Your task to perform on an android device: turn off javascript in the chrome app Image 0: 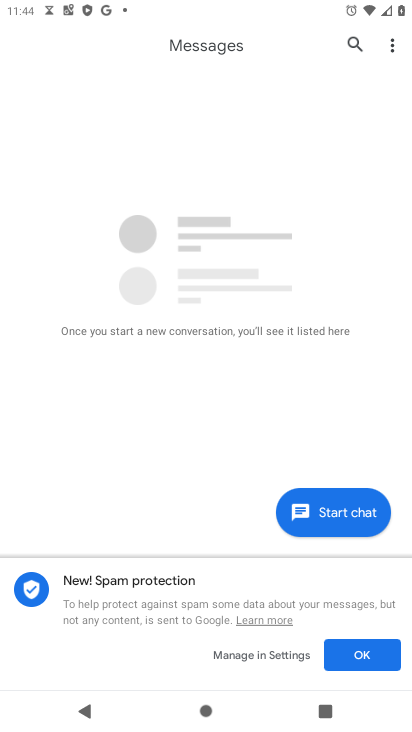
Step 0: press home button
Your task to perform on an android device: turn off javascript in the chrome app Image 1: 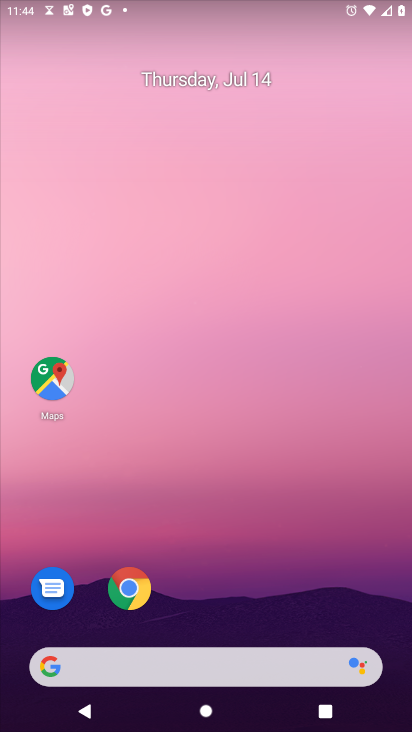
Step 1: click (129, 594)
Your task to perform on an android device: turn off javascript in the chrome app Image 2: 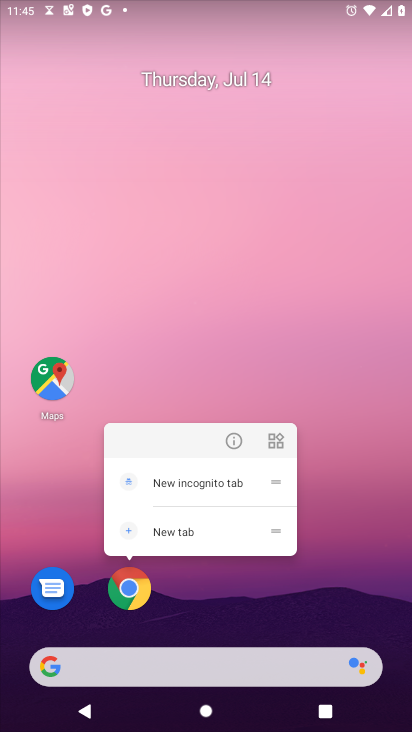
Step 2: click (129, 594)
Your task to perform on an android device: turn off javascript in the chrome app Image 3: 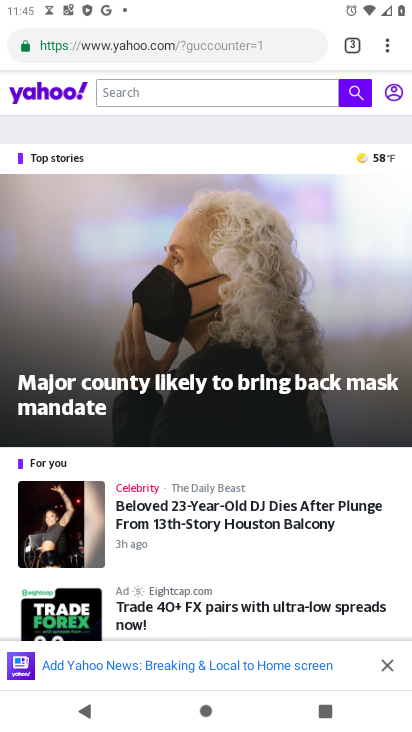
Step 3: drag from (383, 50) to (300, 550)
Your task to perform on an android device: turn off javascript in the chrome app Image 4: 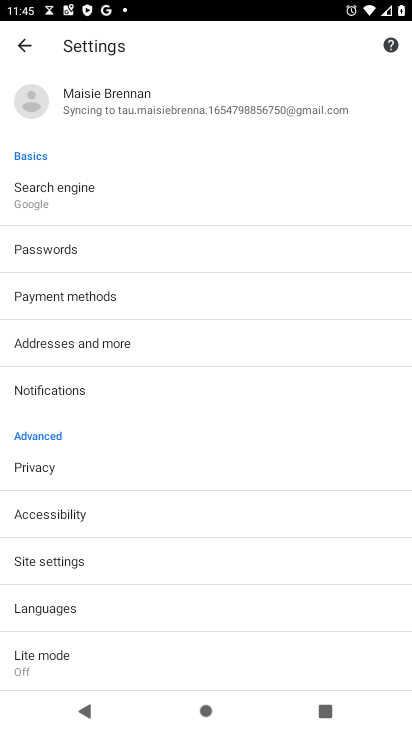
Step 4: click (64, 569)
Your task to perform on an android device: turn off javascript in the chrome app Image 5: 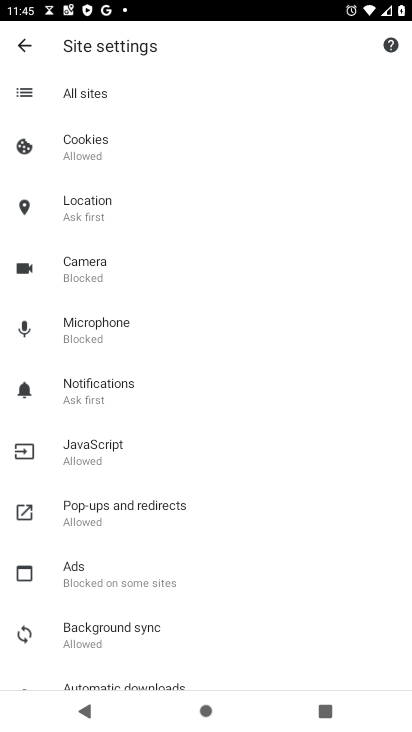
Step 5: click (98, 443)
Your task to perform on an android device: turn off javascript in the chrome app Image 6: 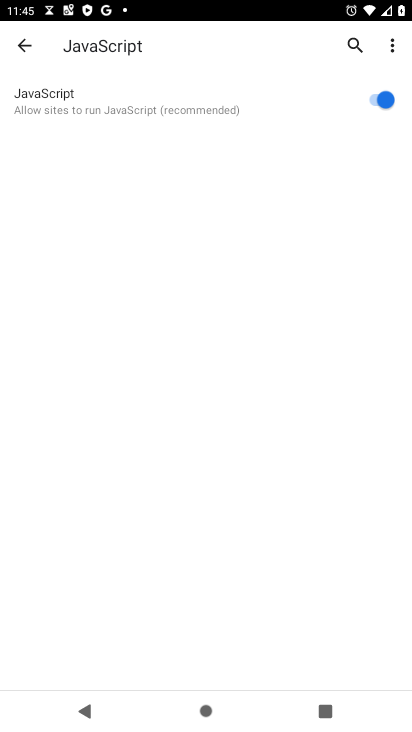
Step 6: click (377, 103)
Your task to perform on an android device: turn off javascript in the chrome app Image 7: 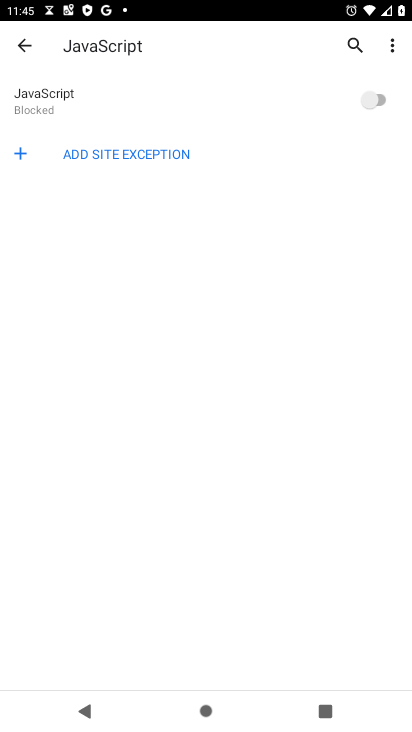
Step 7: task complete